Your task to perform on an android device: Show me recent news Image 0: 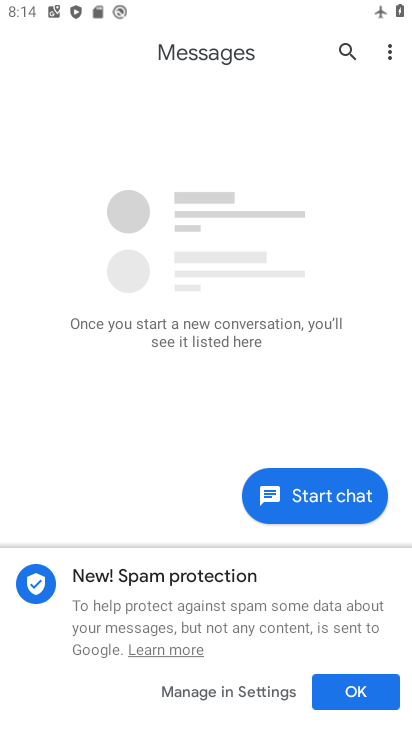
Step 0: press home button
Your task to perform on an android device: Show me recent news Image 1: 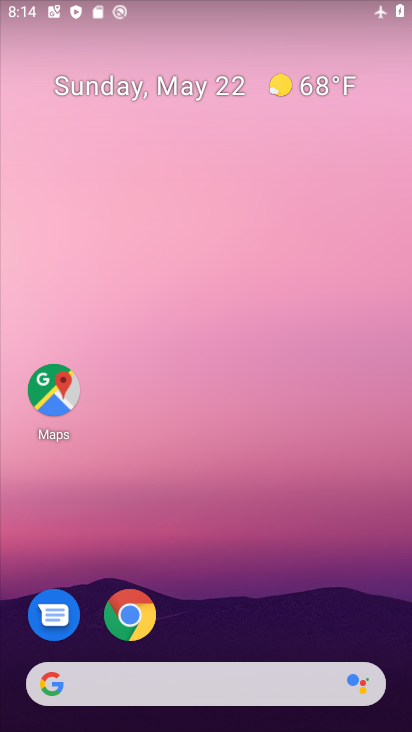
Step 1: click (193, 668)
Your task to perform on an android device: Show me recent news Image 2: 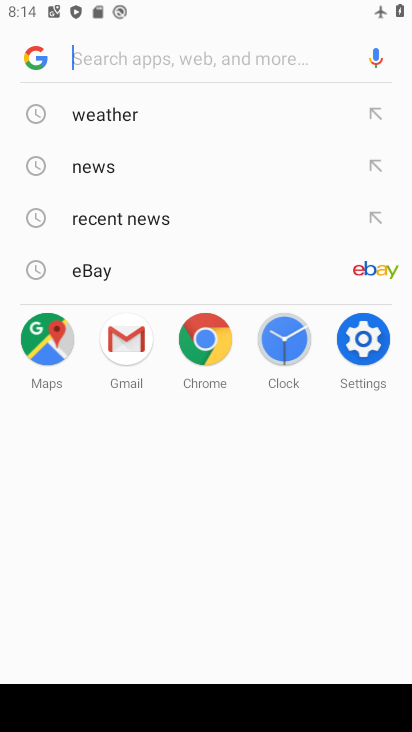
Step 2: click (93, 162)
Your task to perform on an android device: Show me recent news Image 3: 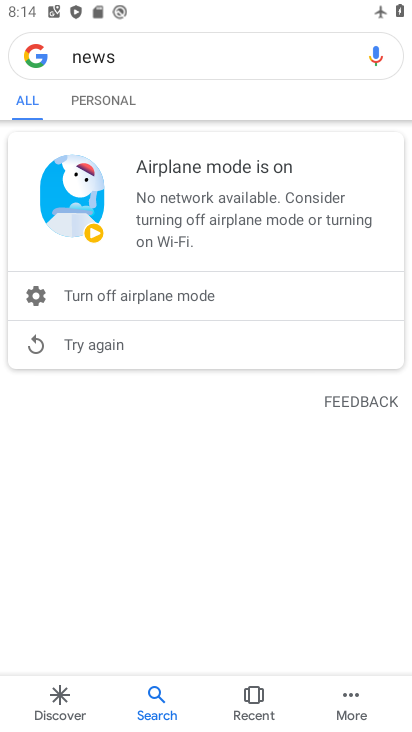
Step 3: task complete